Your task to perform on an android device: search for starred emails in the gmail app Image 0: 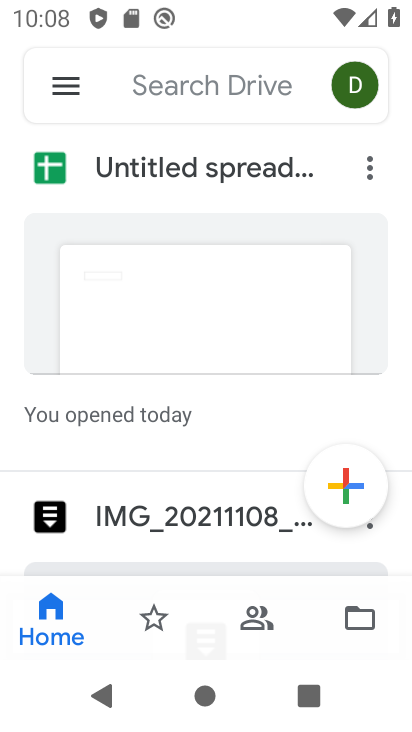
Step 0: press back button
Your task to perform on an android device: search for starred emails in the gmail app Image 1: 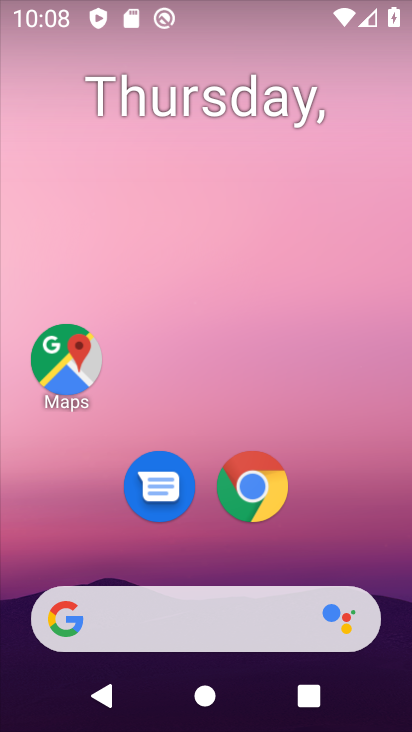
Step 1: drag from (229, 546) to (273, 19)
Your task to perform on an android device: search for starred emails in the gmail app Image 2: 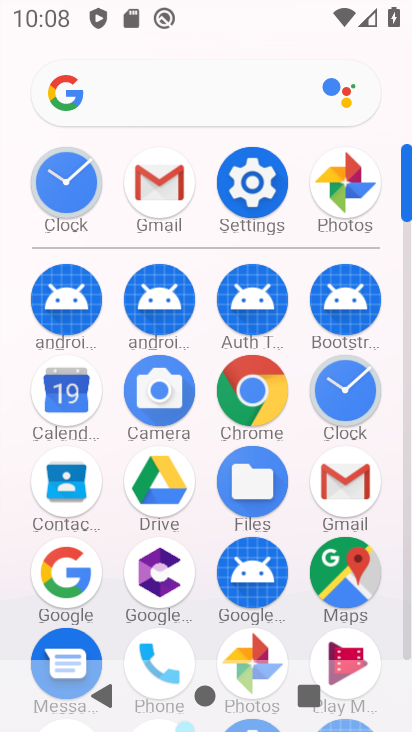
Step 2: click (173, 177)
Your task to perform on an android device: search for starred emails in the gmail app Image 3: 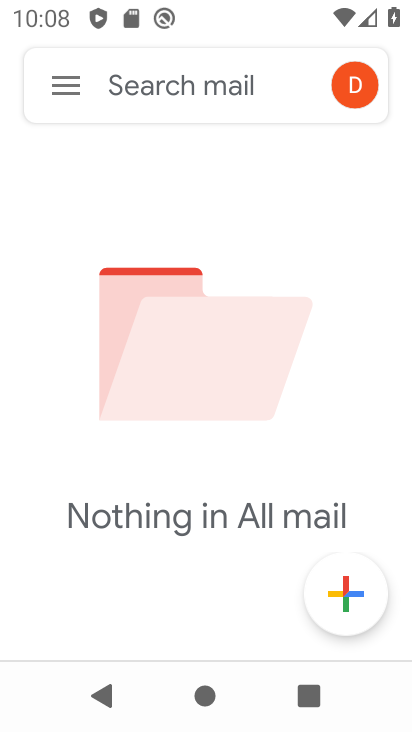
Step 3: click (82, 59)
Your task to perform on an android device: search for starred emails in the gmail app Image 4: 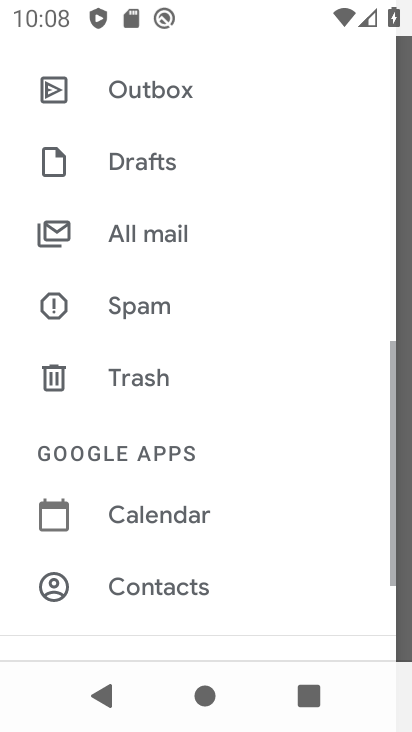
Step 4: drag from (288, 134) to (162, 630)
Your task to perform on an android device: search for starred emails in the gmail app Image 5: 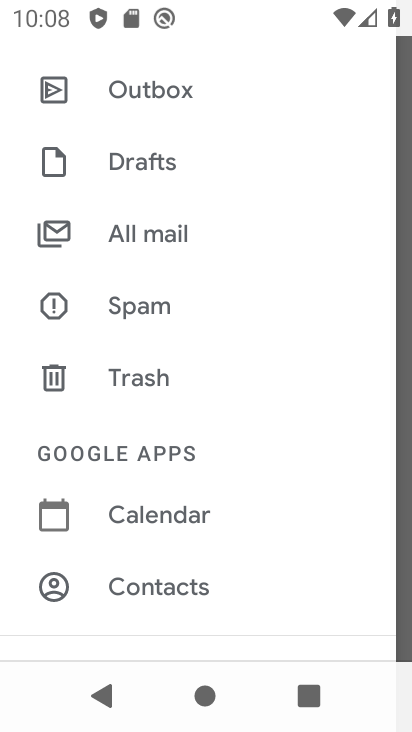
Step 5: drag from (178, 145) to (187, 663)
Your task to perform on an android device: search for starred emails in the gmail app Image 6: 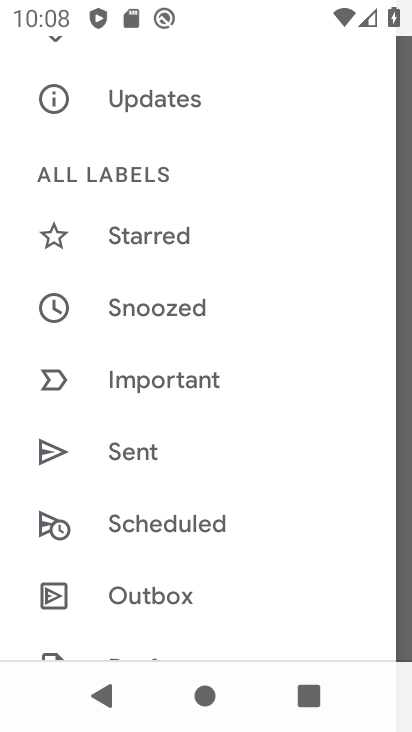
Step 6: click (173, 240)
Your task to perform on an android device: search for starred emails in the gmail app Image 7: 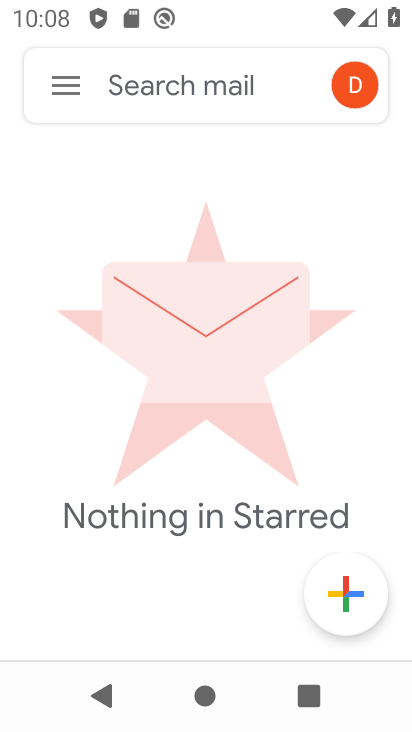
Step 7: task complete